Your task to perform on an android device: Open privacy settings Image 0: 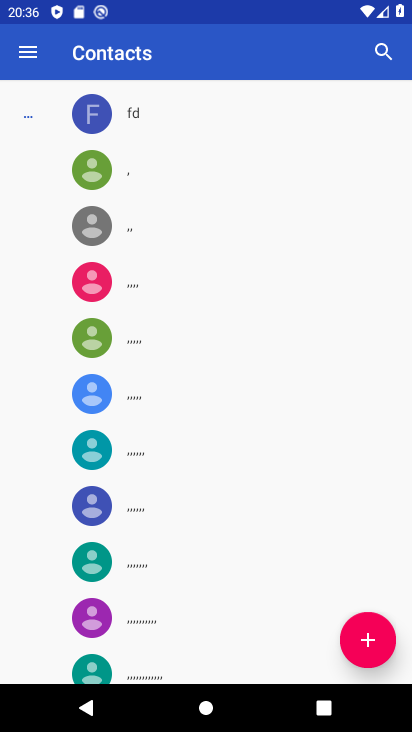
Step 0: press home button
Your task to perform on an android device: Open privacy settings Image 1: 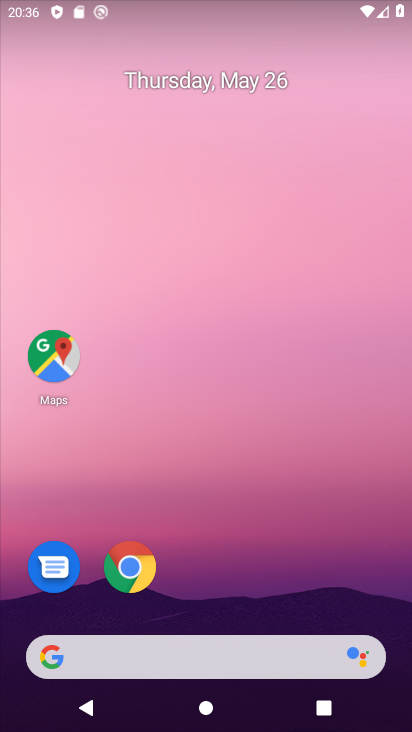
Step 1: drag from (276, 602) to (280, 135)
Your task to perform on an android device: Open privacy settings Image 2: 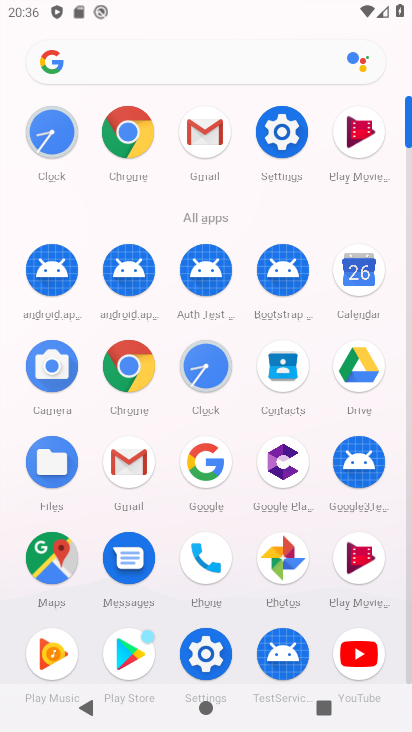
Step 2: click (282, 142)
Your task to perform on an android device: Open privacy settings Image 3: 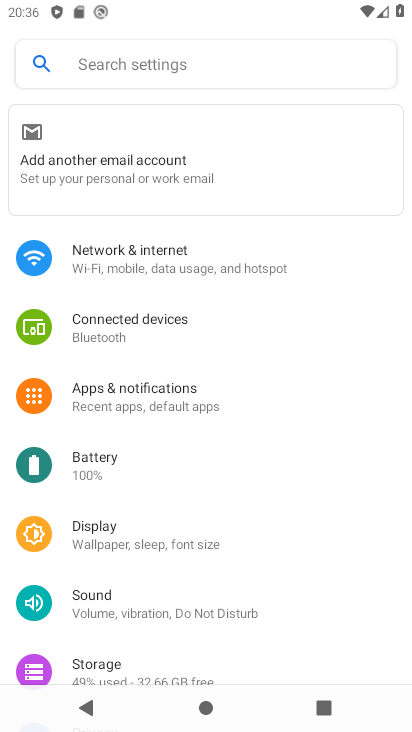
Step 3: drag from (167, 628) to (216, 195)
Your task to perform on an android device: Open privacy settings Image 4: 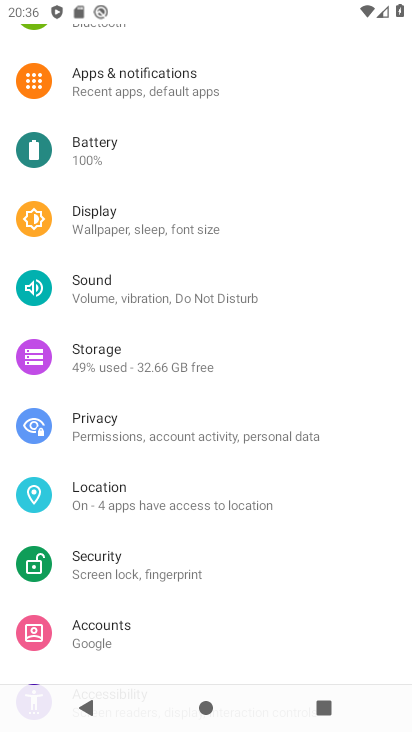
Step 4: click (168, 430)
Your task to perform on an android device: Open privacy settings Image 5: 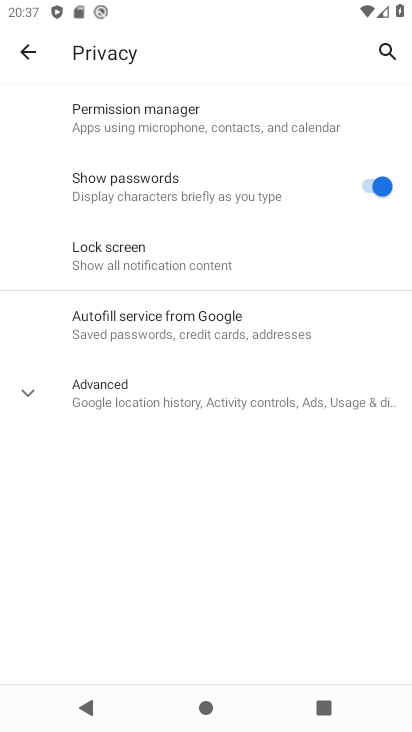
Step 5: task complete